Your task to perform on an android device: change the clock style Image 0: 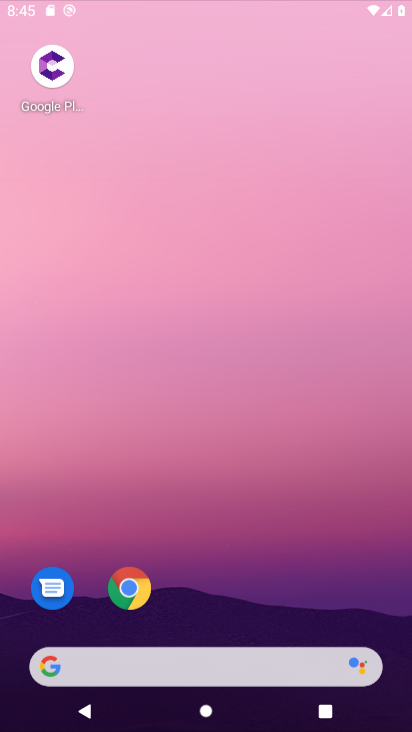
Step 0: press home button
Your task to perform on an android device: change the clock style Image 1: 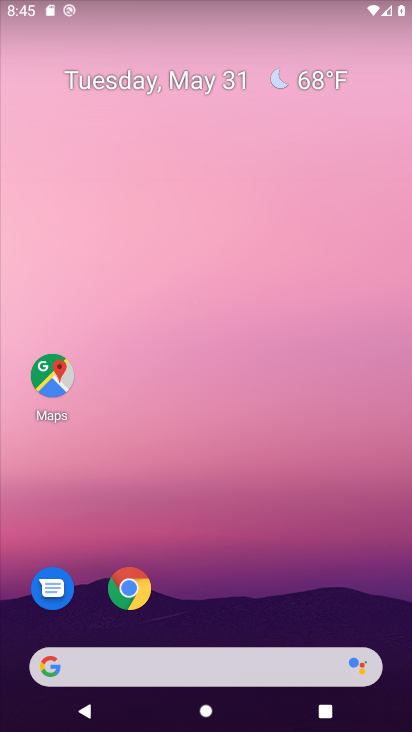
Step 1: drag from (175, 662) to (292, 300)
Your task to perform on an android device: change the clock style Image 2: 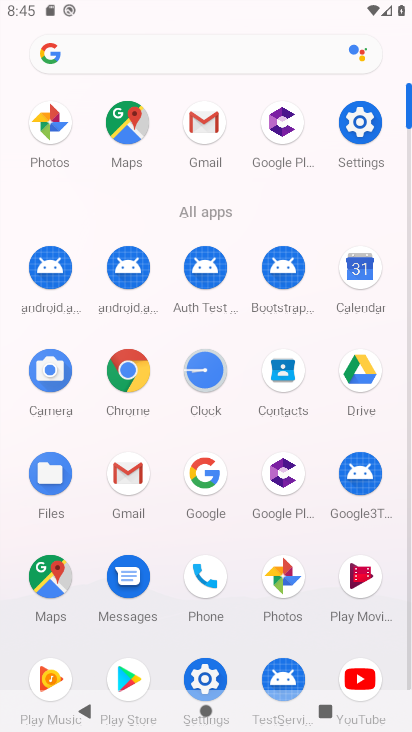
Step 2: click (201, 367)
Your task to perform on an android device: change the clock style Image 3: 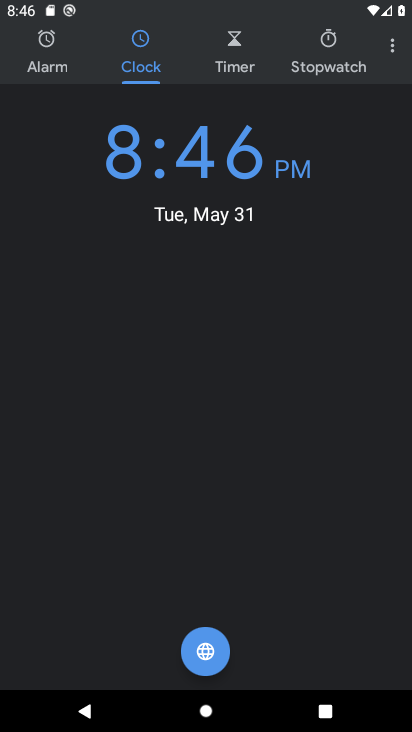
Step 3: click (398, 41)
Your task to perform on an android device: change the clock style Image 4: 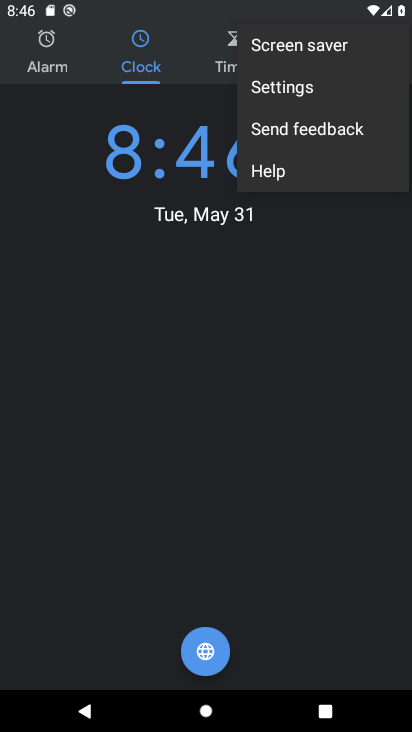
Step 4: click (286, 91)
Your task to perform on an android device: change the clock style Image 5: 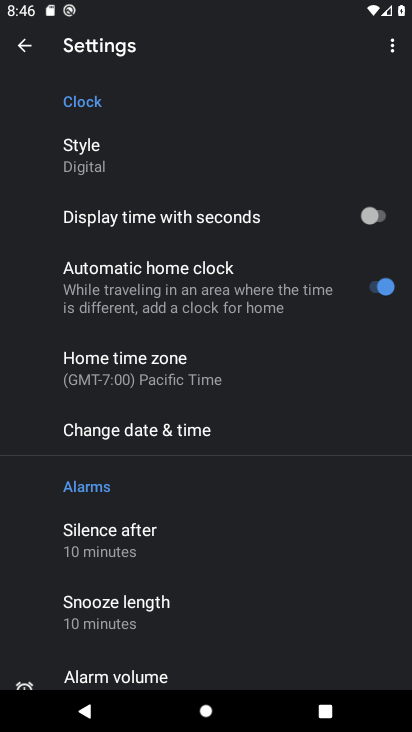
Step 5: click (95, 157)
Your task to perform on an android device: change the clock style Image 6: 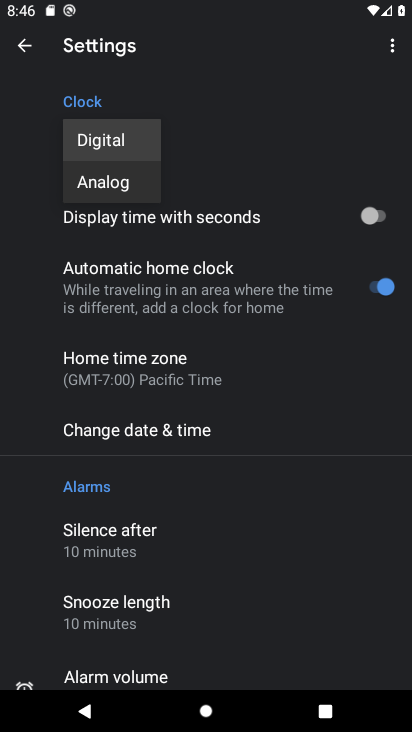
Step 6: click (139, 181)
Your task to perform on an android device: change the clock style Image 7: 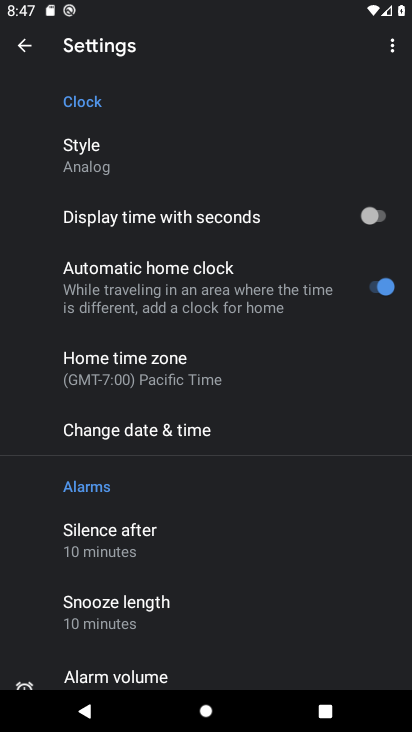
Step 7: task complete